Your task to perform on an android device: turn on translation in the chrome app Image 0: 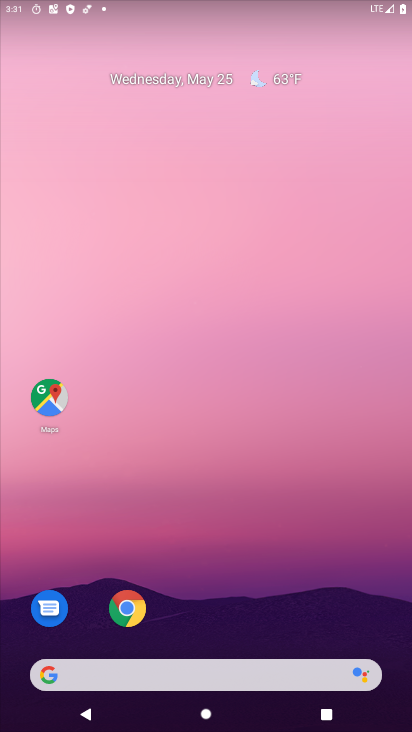
Step 0: click (125, 604)
Your task to perform on an android device: turn on translation in the chrome app Image 1: 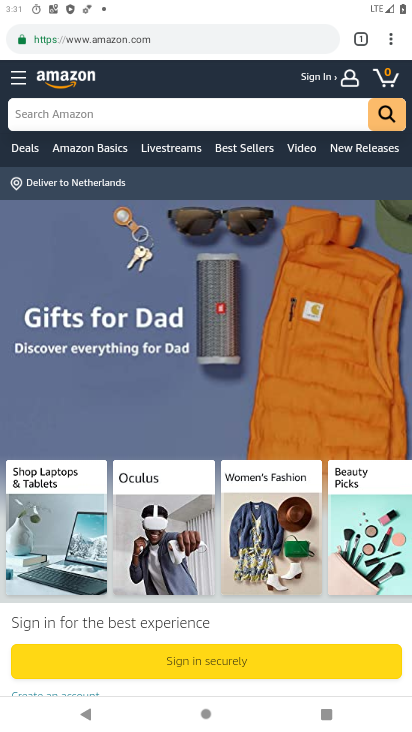
Step 1: drag from (392, 33) to (256, 476)
Your task to perform on an android device: turn on translation in the chrome app Image 2: 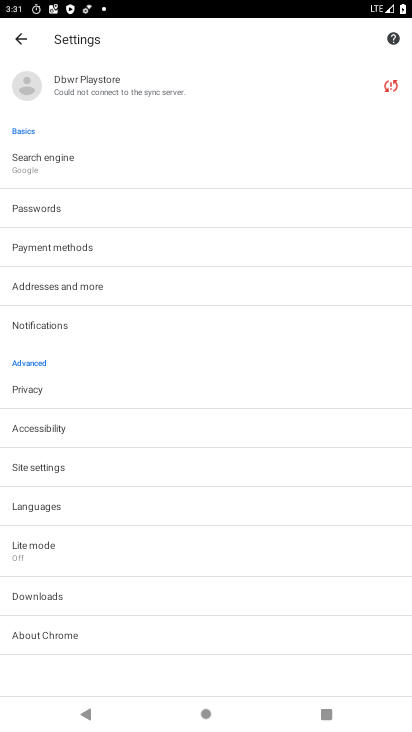
Step 2: click (58, 552)
Your task to perform on an android device: turn on translation in the chrome app Image 3: 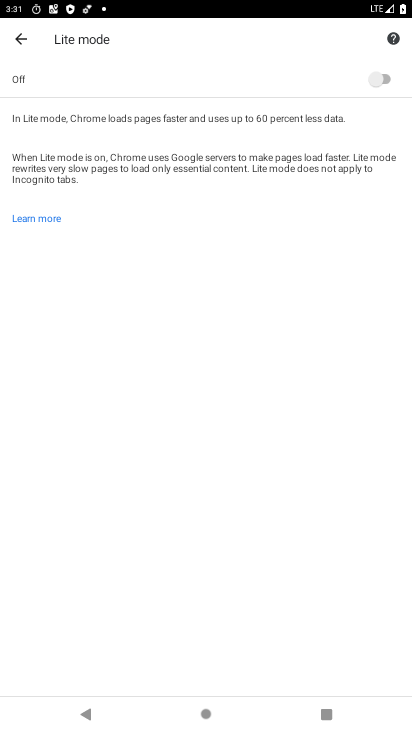
Step 3: click (376, 79)
Your task to perform on an android device: turn on translation in the chrome app Image 4: 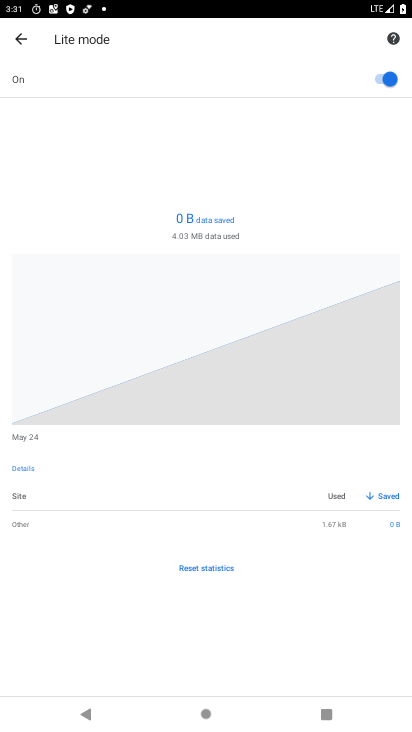
Step 4: task complete